Your task to perform on an android device: Go to Android settings Image 0: 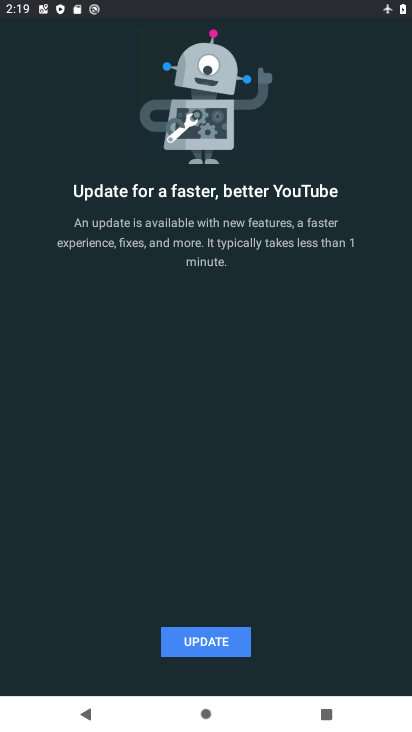
Step 0: press back button
Your task to perform on an android device: Go to Android settings Image 1: 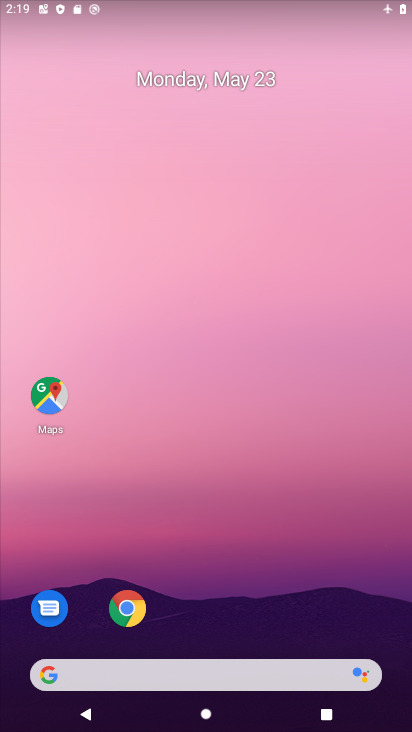
Step 1: drag from (234, 650) to (389, 502)
Your task to perform on an android device: Go to Android settings Image 2: 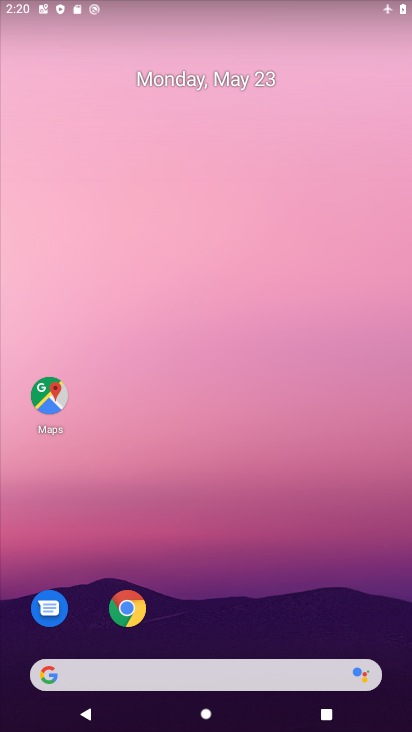
Step 2: drag from (244, 646) to (265, 94)
Your task to perform on an android device: Go to Android settings Image 3: 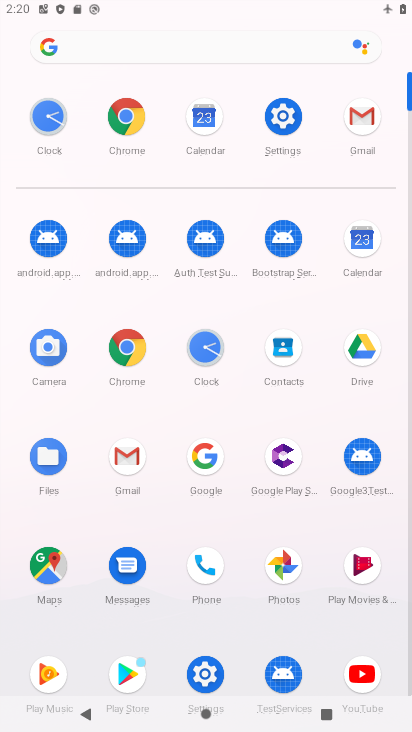
Step 3: click (208, 675)
Your task to perform on an android device: Go to Android settings Image 4: 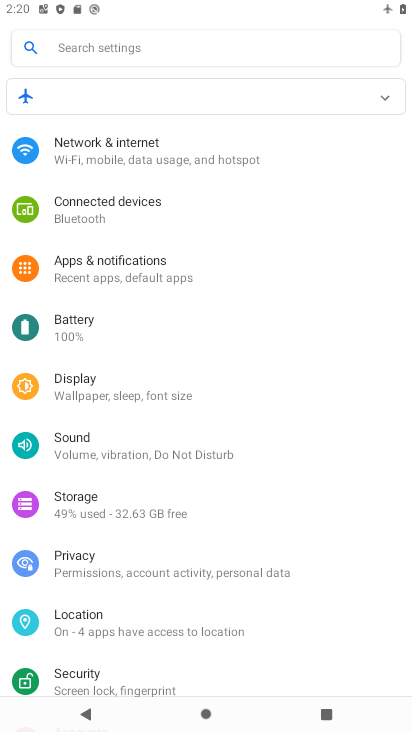
Step 4: task complete